Your task to perform on an android device: check battery use Image 0: 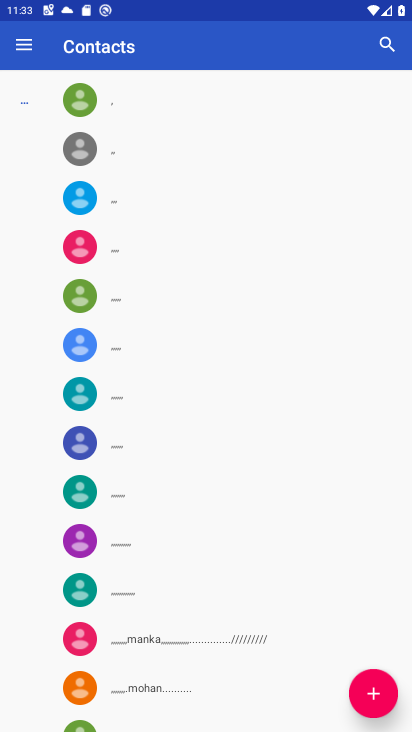
Step 0: press home button
Your task to perform on an android device: check battery use Image 1: 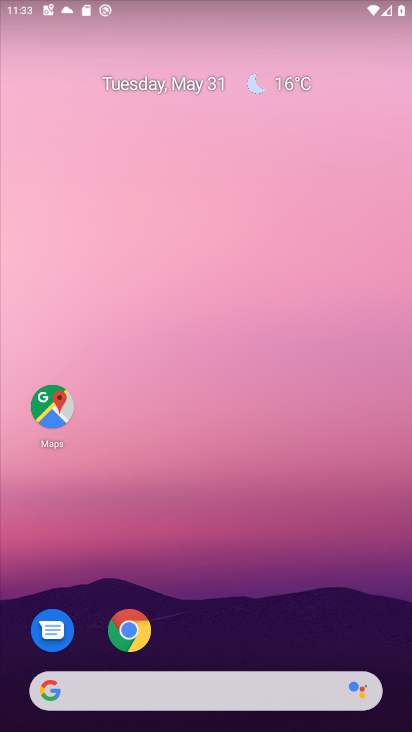
Step 1: drag from (301, 491) to (255, 150)
Your task to perform on an android device: check battery use Image 2: 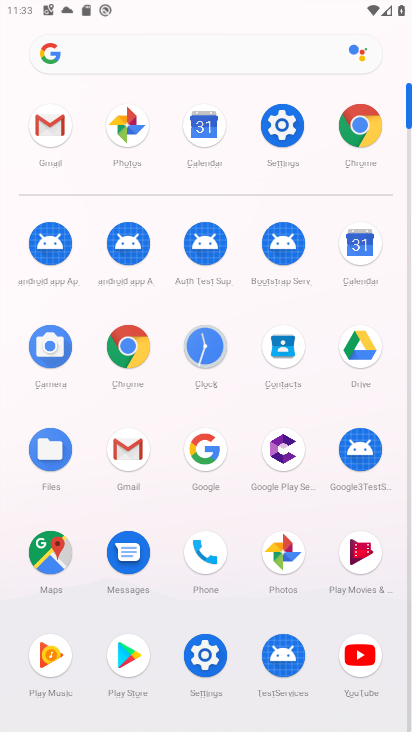
Step 2: click (278, 133)
Your task to perform on an android device: check battery use Image 3: 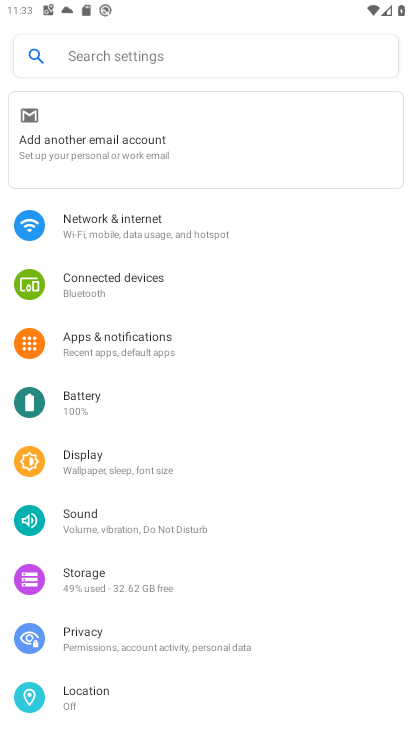
Step 3: click (89, 397)
Your task to perform on an android device: check battery use Image 4: 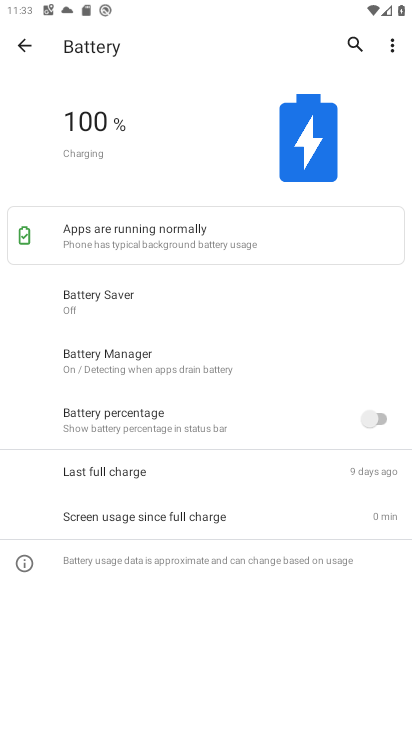
Step 4: click (388, 47)
Your task to perform on an android device: check battery use Image 5: 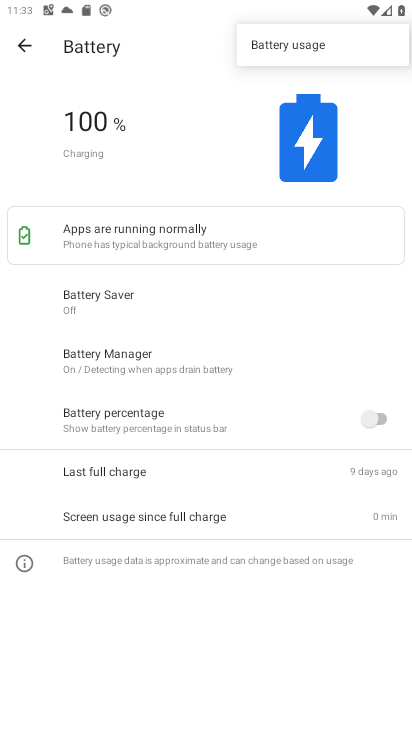
Step 5: click (321, 48)
Your task to perform on an android device: check battery use Image 6: 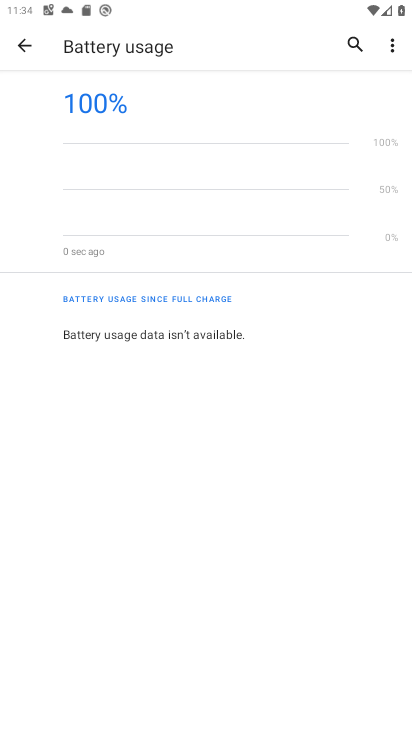
Step 6: task complete